Your task to perform on an android device: check google app version Image 0: 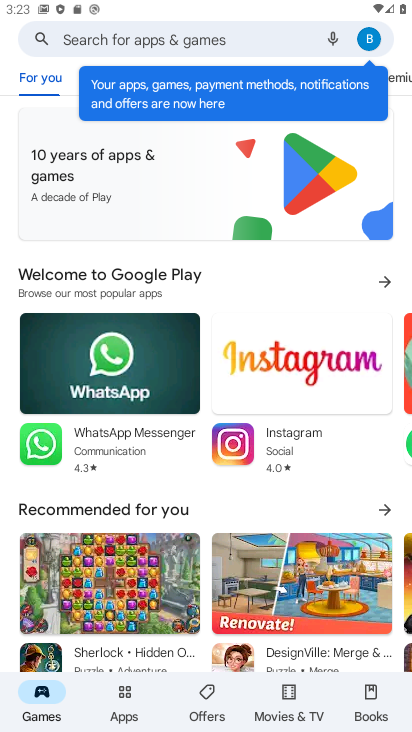
Step 0: press home button
Your task to perform on an android device: check google app version Image 1: 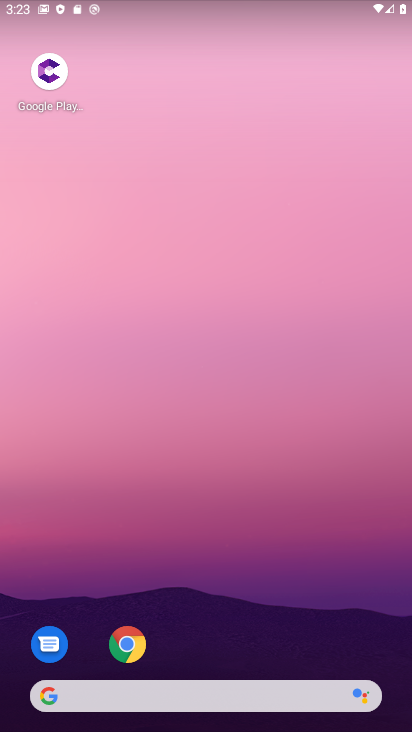
Step 1: click (125, 643)
Your task to perform on an android device: check google app version Image 2: 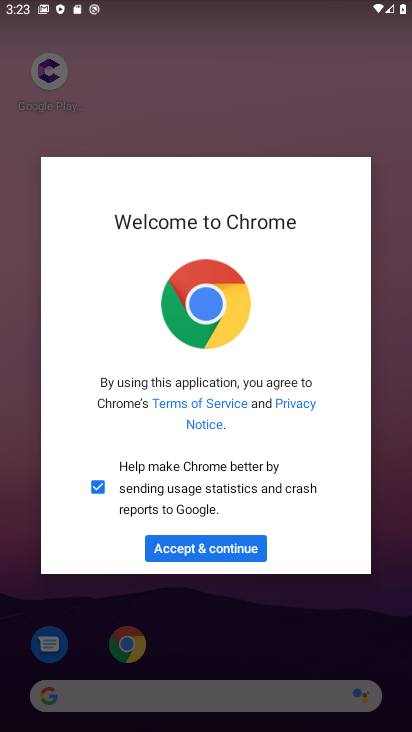
Step 2: click (200, 551)
Your task to perform on an android device: check google app version Image 3: 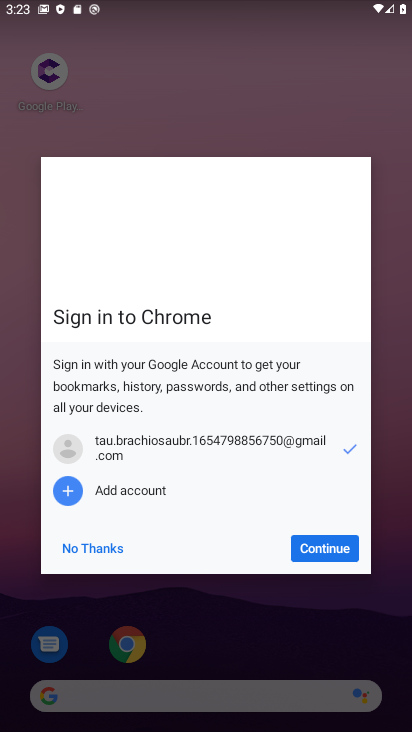
Step 3: click (321, 547)
Your task to perform on an android device: check google app version Image 4: 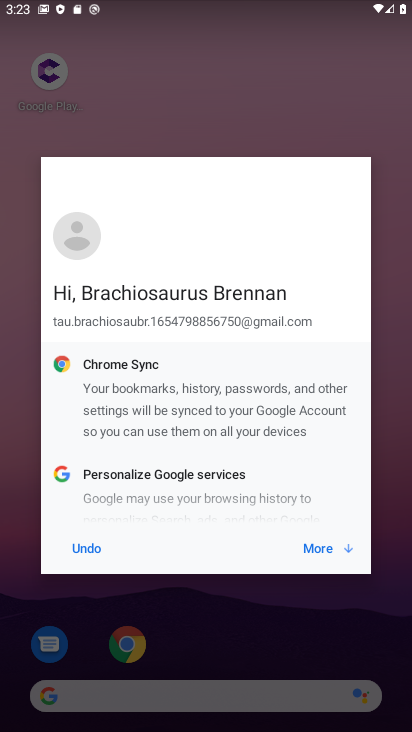
Step 4: click (321, 547)
Your task to perform on an android device: check google app version Image 5: 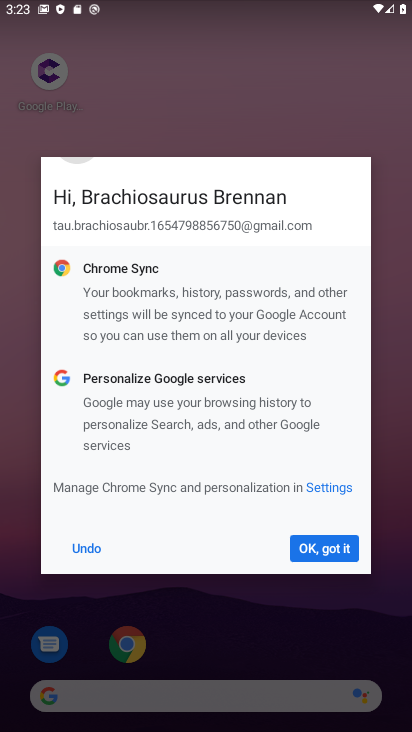
Step 5: click (321, 547)
Your task to perform on an android device: check google app version Image 6: 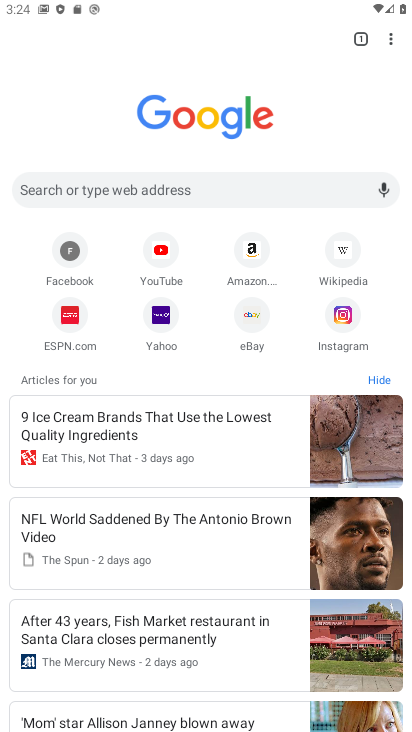
Step 6: click (392, 42)
Your task to perform on an android device: check google app version Image 7: 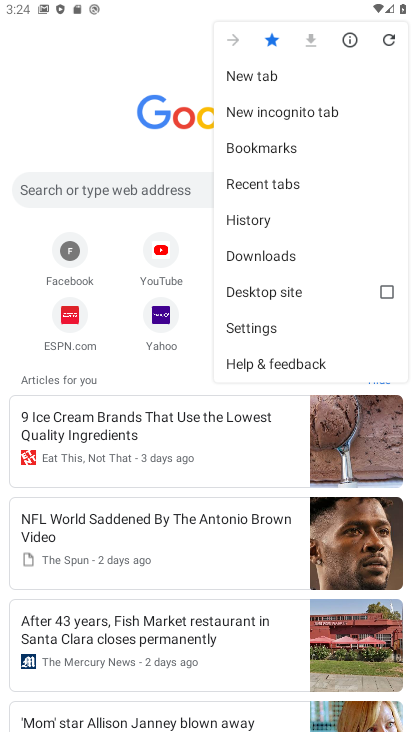
Step 7: click (248, 326)
Your task to perform on an android device: check google app version Image 8: 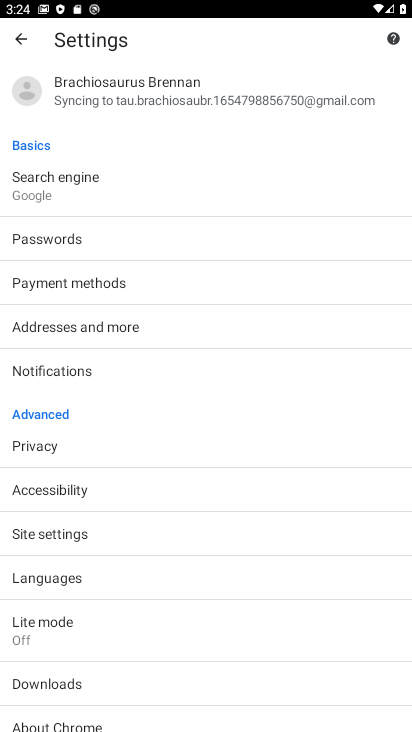
Step 8: drag from (202, 687) to (205, 286)
Your task to perform on an android device: check google app version Image 9: 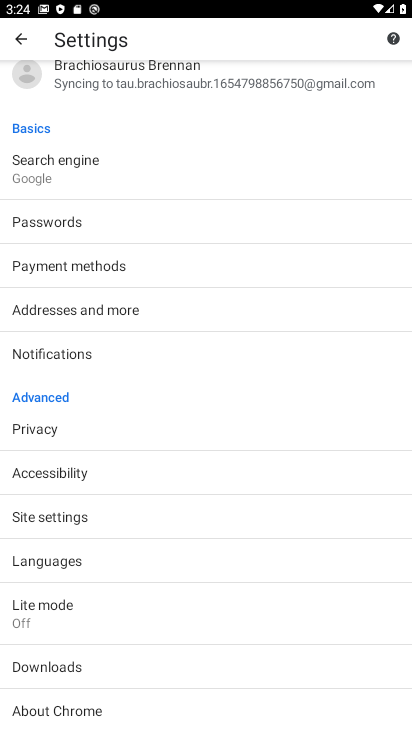
Step 9: click (47, 711)
Your task to perform on an android device: check google app version Image 10: 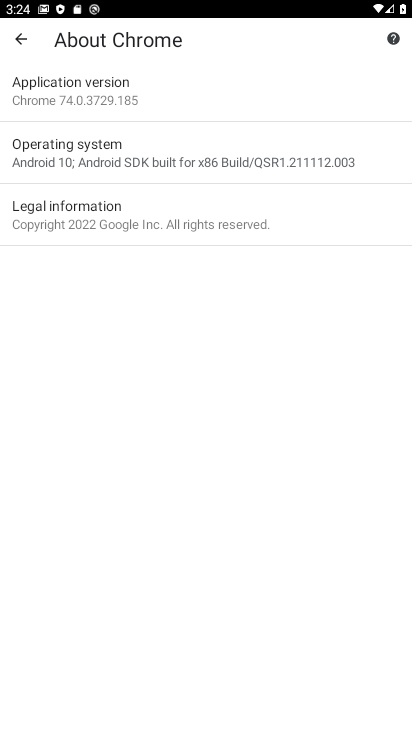
Step 10: click (79, 93)
Your task to perform on an android device: check google app version Image 11: 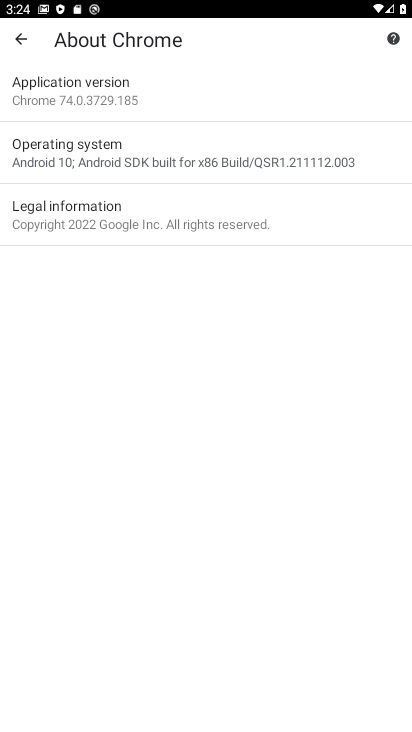
Step 11: task complete